Your task to perform on an android device: Go to accessibility settings Image 0: 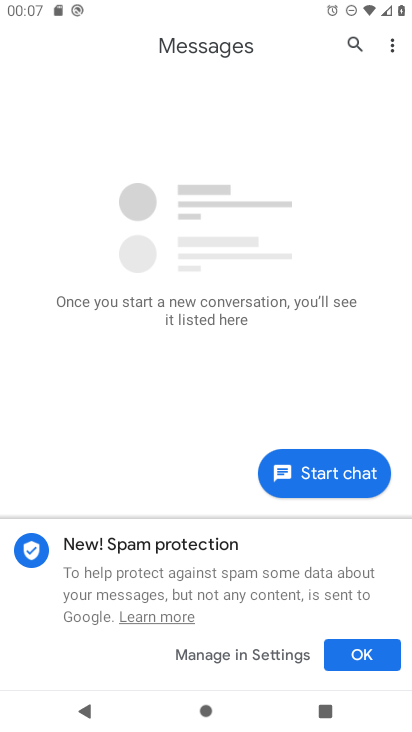
Step 0: press home button
Your task to perform on an android device: Go to accessibility settings Image 1: 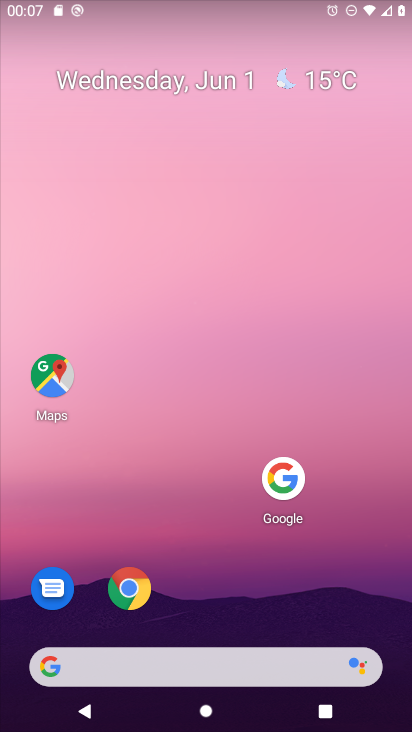
Step 1: drag from (164, 649) to (288, 98)
Your task to perform on an android device: Go to accessibility settings Image 2: 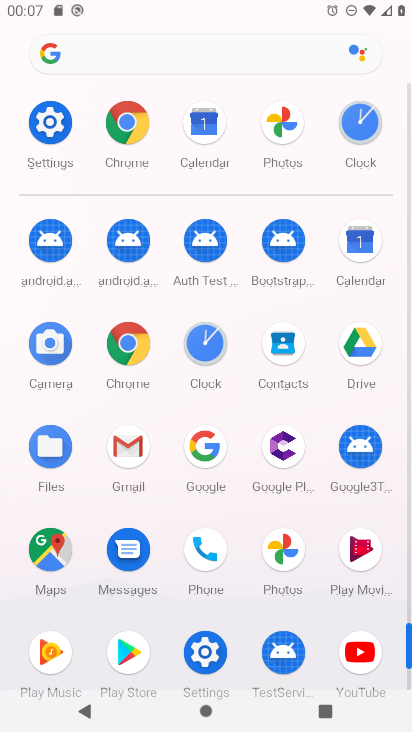
Step 2: click (53, 126)
Your task to perform on an android device: Go to accessibility settings Image 3: 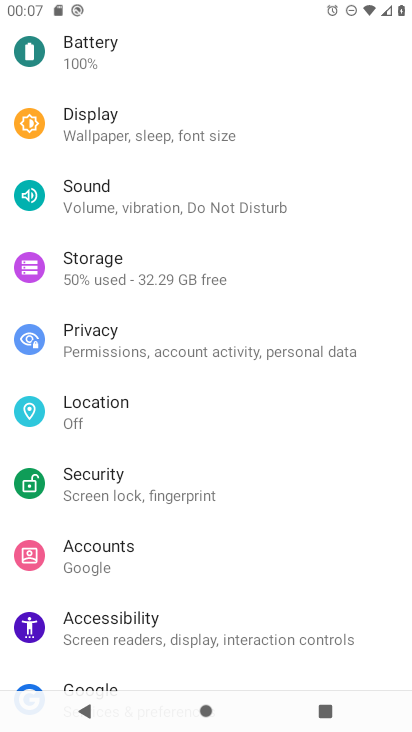
Step 3: click (138, 627)
Your task to perform on an android device: Go to accessibility settings Image 4: 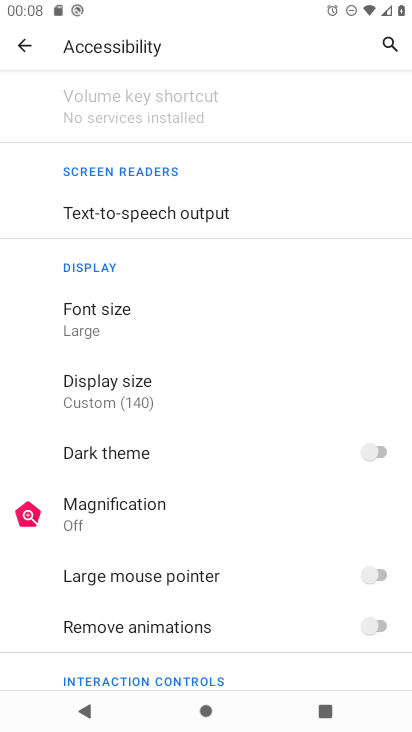
Step 4: task complete